Your task to perform on an android device: Open Youtube and go to "Your channel" Image 0: 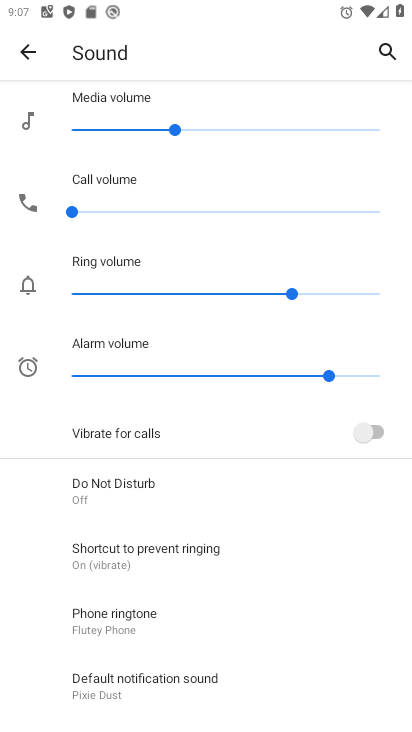
Step 0: press home button
Your task to perform on an android device: Open Youtube and go to "Your channel" Image 1: 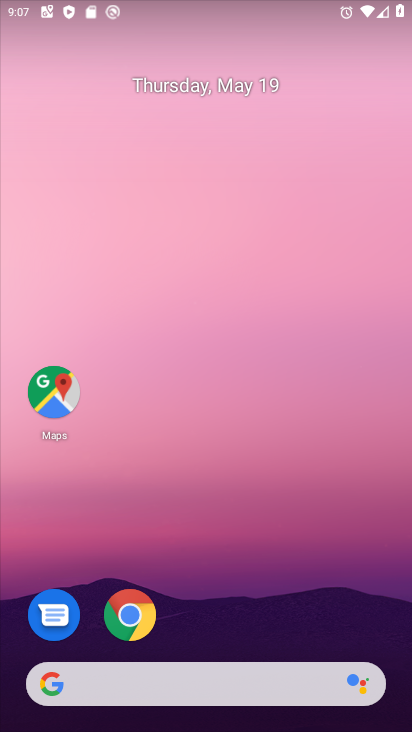
Step 1: drag from (294, 654) to (326, 92)
Your task to perform on an android device: Open Youtube and go to "Your channel" Image 2: 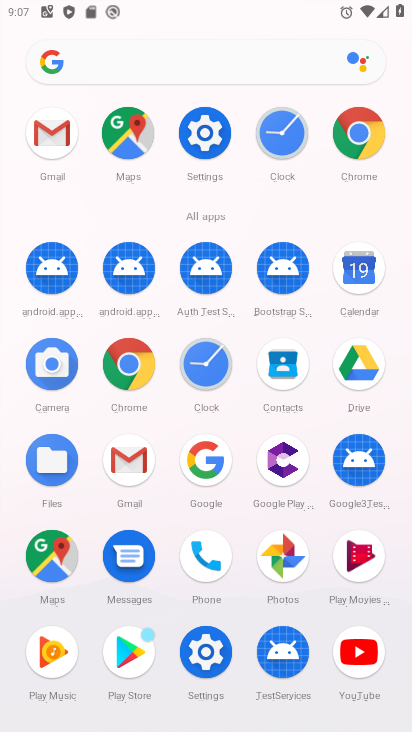
Step 2: click (349, 663)
Your task to perform on an android device: Open Youtube and go to "Your channel" Image 3: 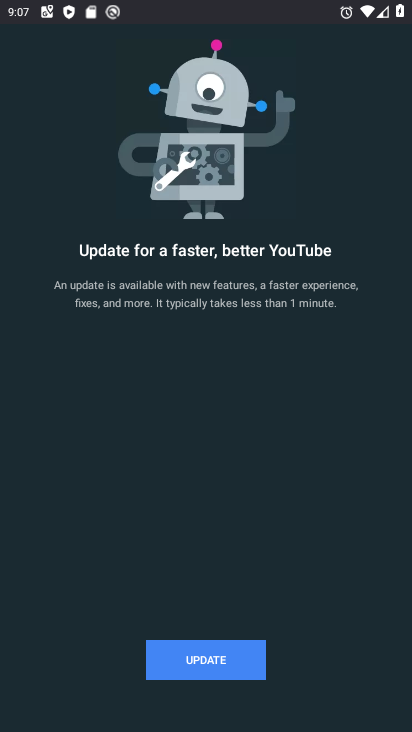
Step 3: click (231, 659)
Your task to perform on an android device: Open Youtube and go to "Your channel" Image 4: 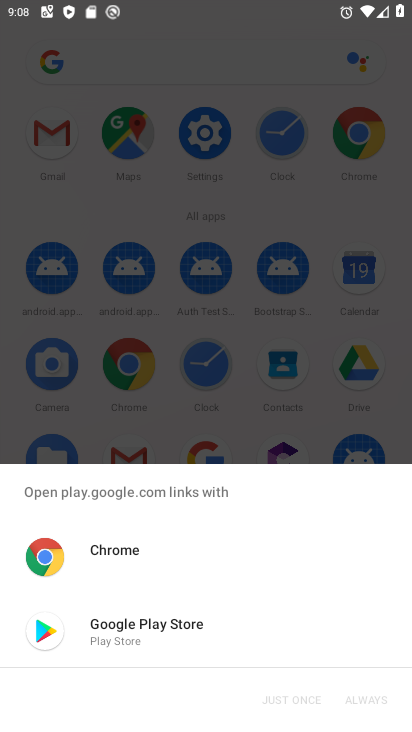
Step 4: click (173, 631)
Your task to perform on an android device: Open Youtube and go to "Your channel" Image 5: 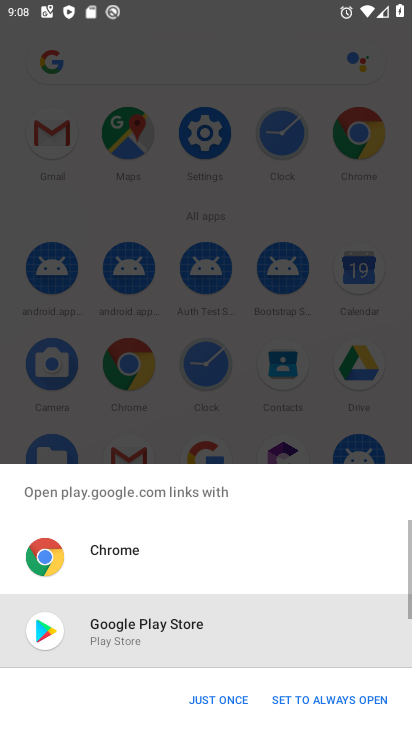
Step 5: click (183, 720)
Your task to perform on an android device: Open Youtube and go to "Your channel" Image 6: 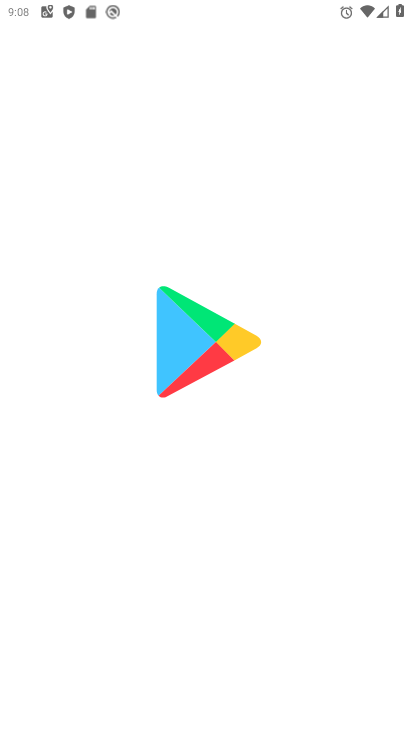
Step 6: click (193, 695)
Your task to perform on an android device: Open Youtube and go to "Your channel" Image 7: 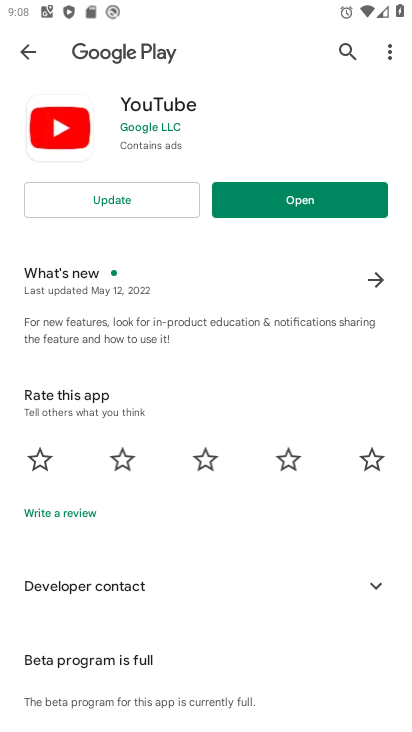
Step 7: click (137, 211)
Your task to perform on an android device: Open Youtube and go to "Your channel" Image 8: 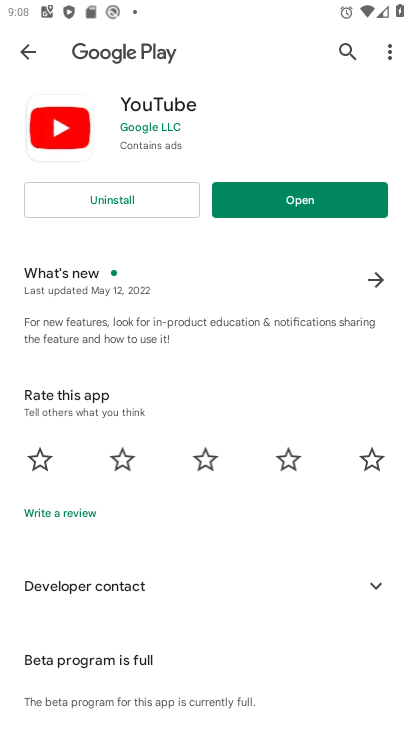
Step 8: click (279, 196)
Your task to perform on an android device: Open Youtube and go to "Your channel" Image 9: 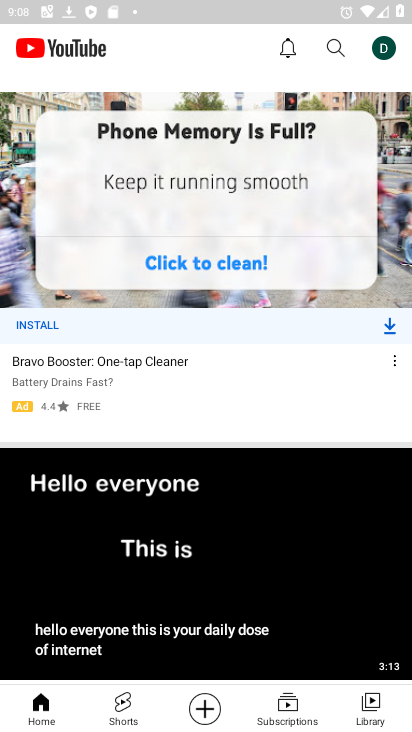
Step 9: task complete